Your task to perform on an android device: open device folders in google photos Image 0: 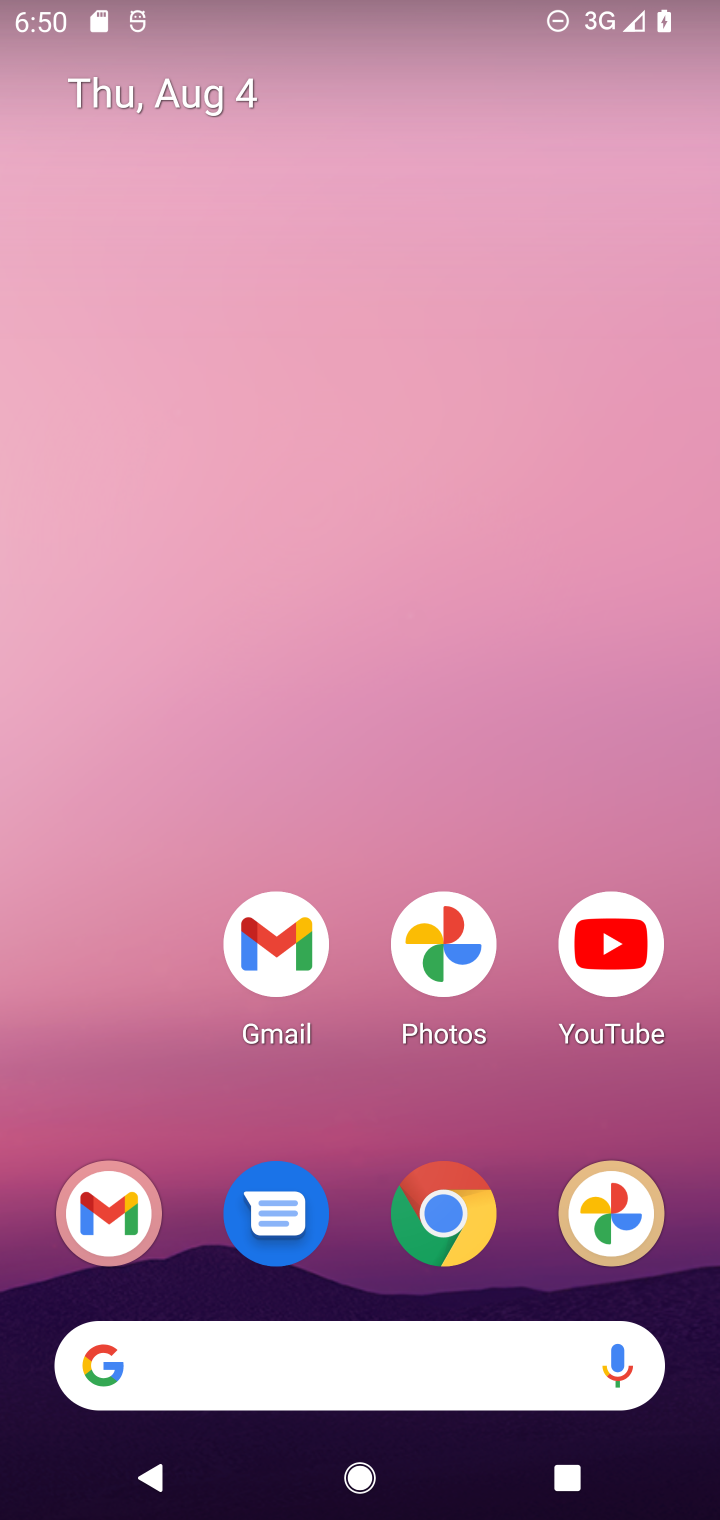
Step 0: press home button
Your task to perform on an android device: open device folders in google photos Image 1: 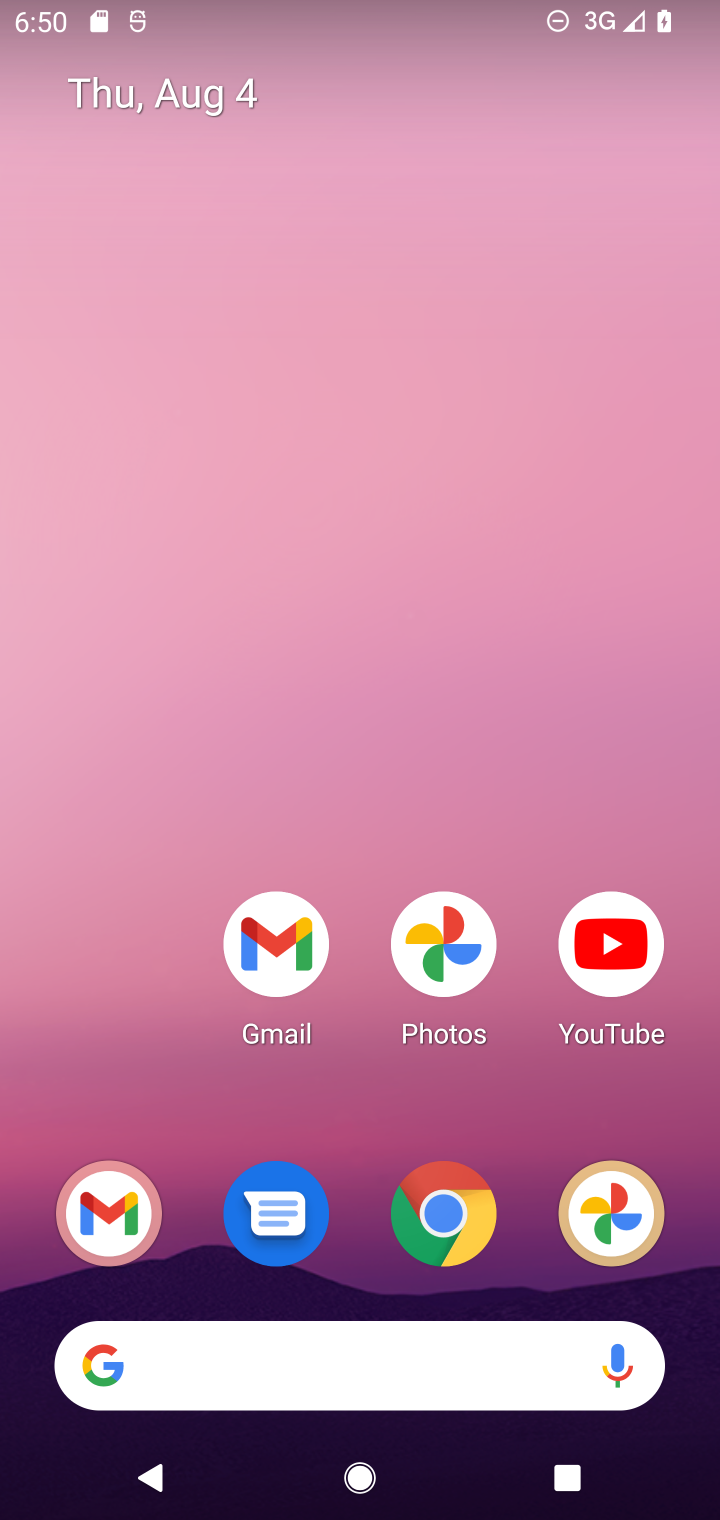
Step 1: drag from (174, 1131) to (152, 321)
Your task to perform on an android device: open device folders in google photos Image 2: 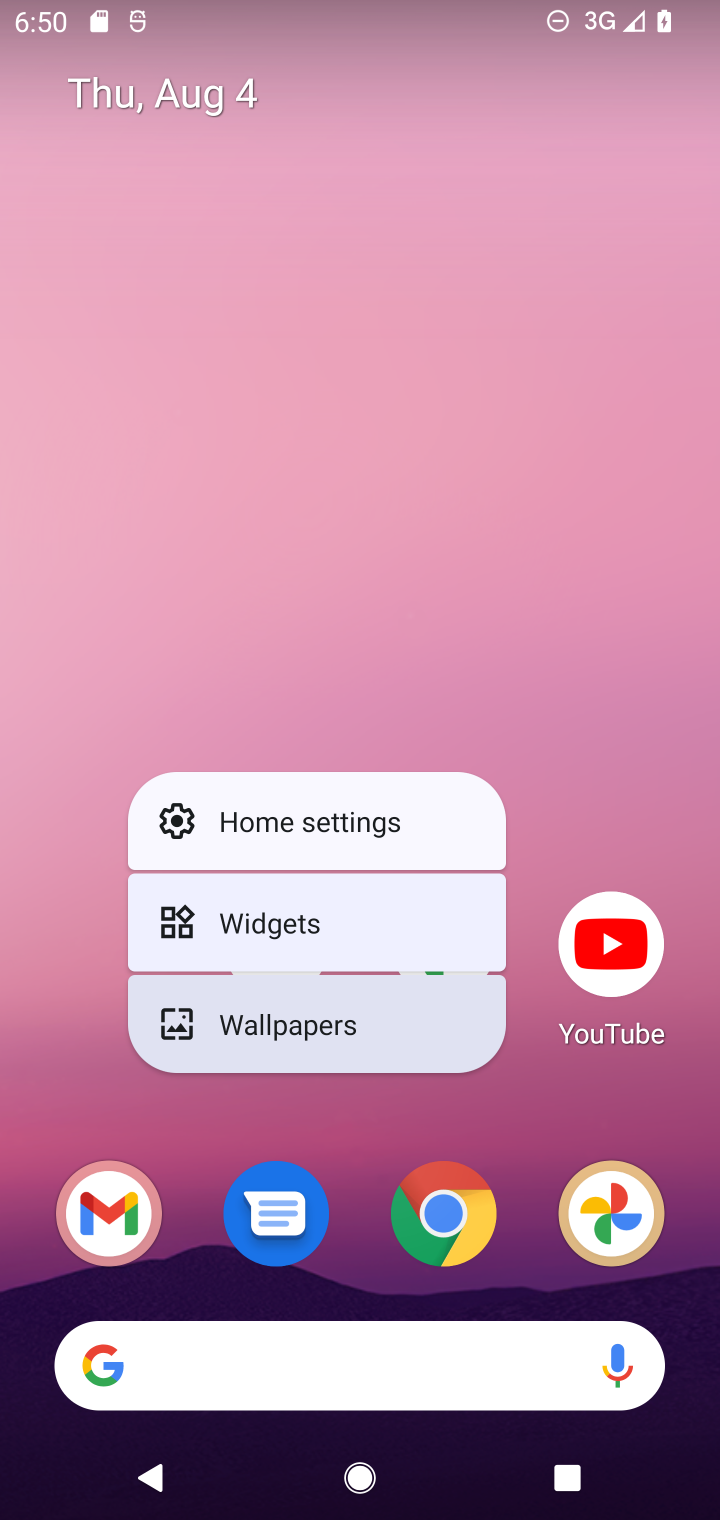
Step 2: click (62, 698)
Your task to perform on an android device: open device folders in google photos Image 3: 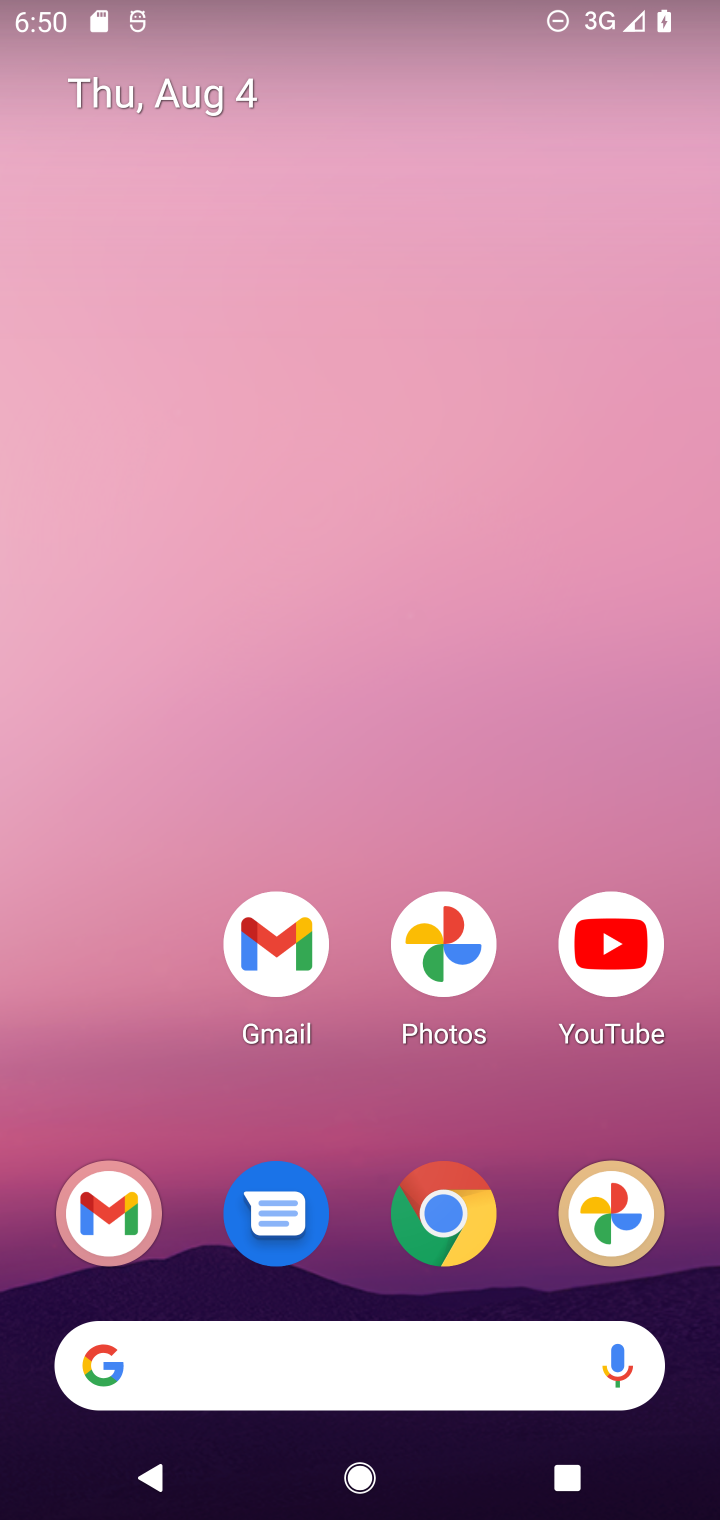
Step 3: drag from (114, 1013) to (116, 252)
Your task to perform on an android device: open device folders in google photos Image 4: 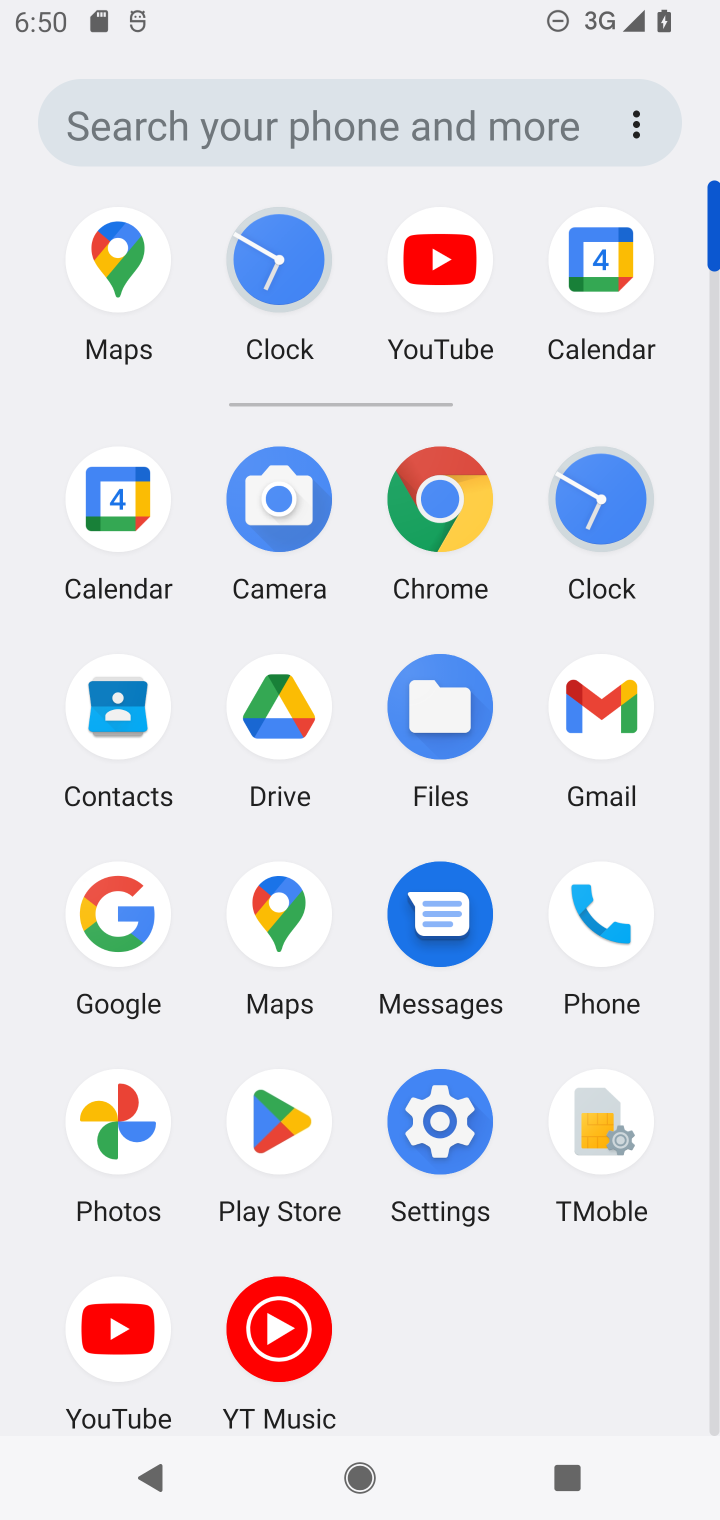
Step 4: click (119, 1141)
Your task to perform on an android device: open device folders in google photos Image 5: 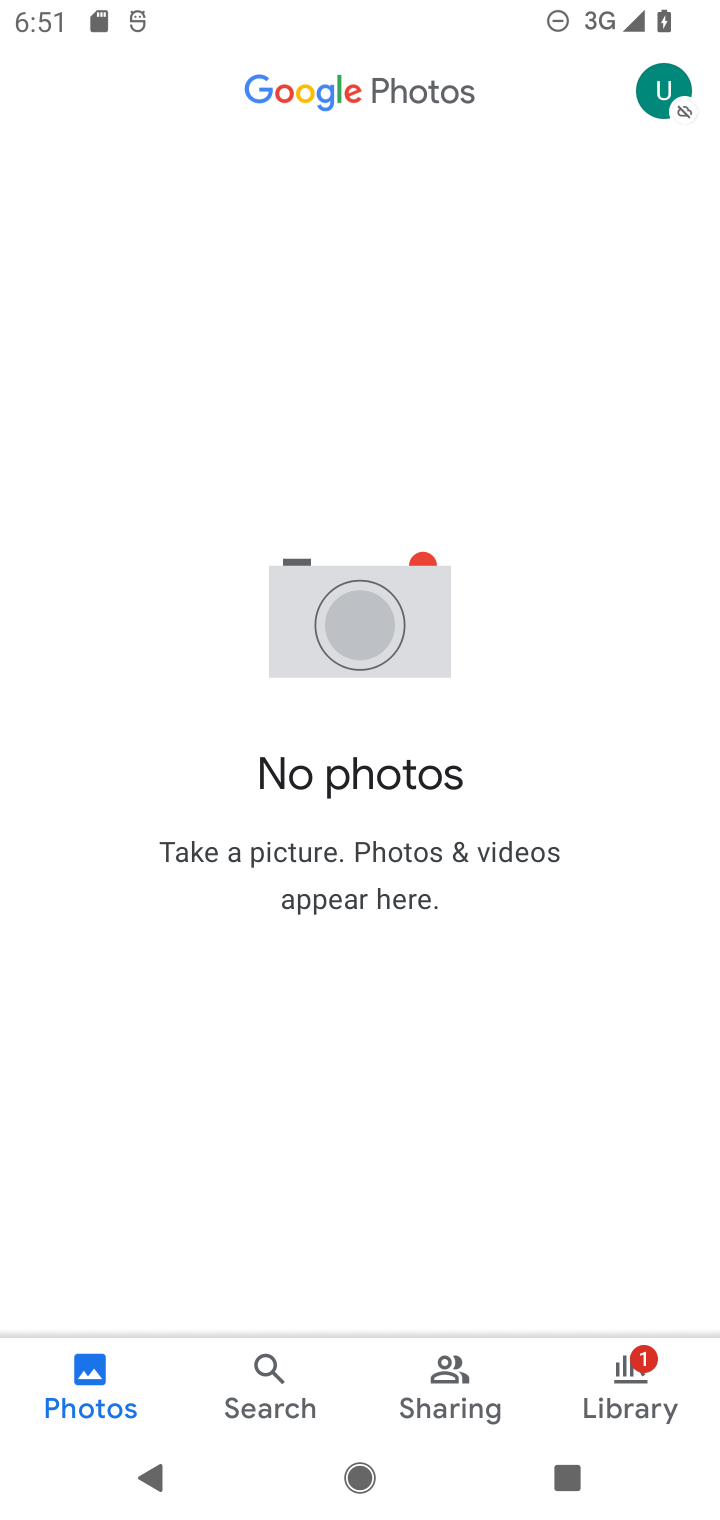
Step 5: click (640, 1372)
Your task to perform on an android device: open device folders in google photos Image 6: 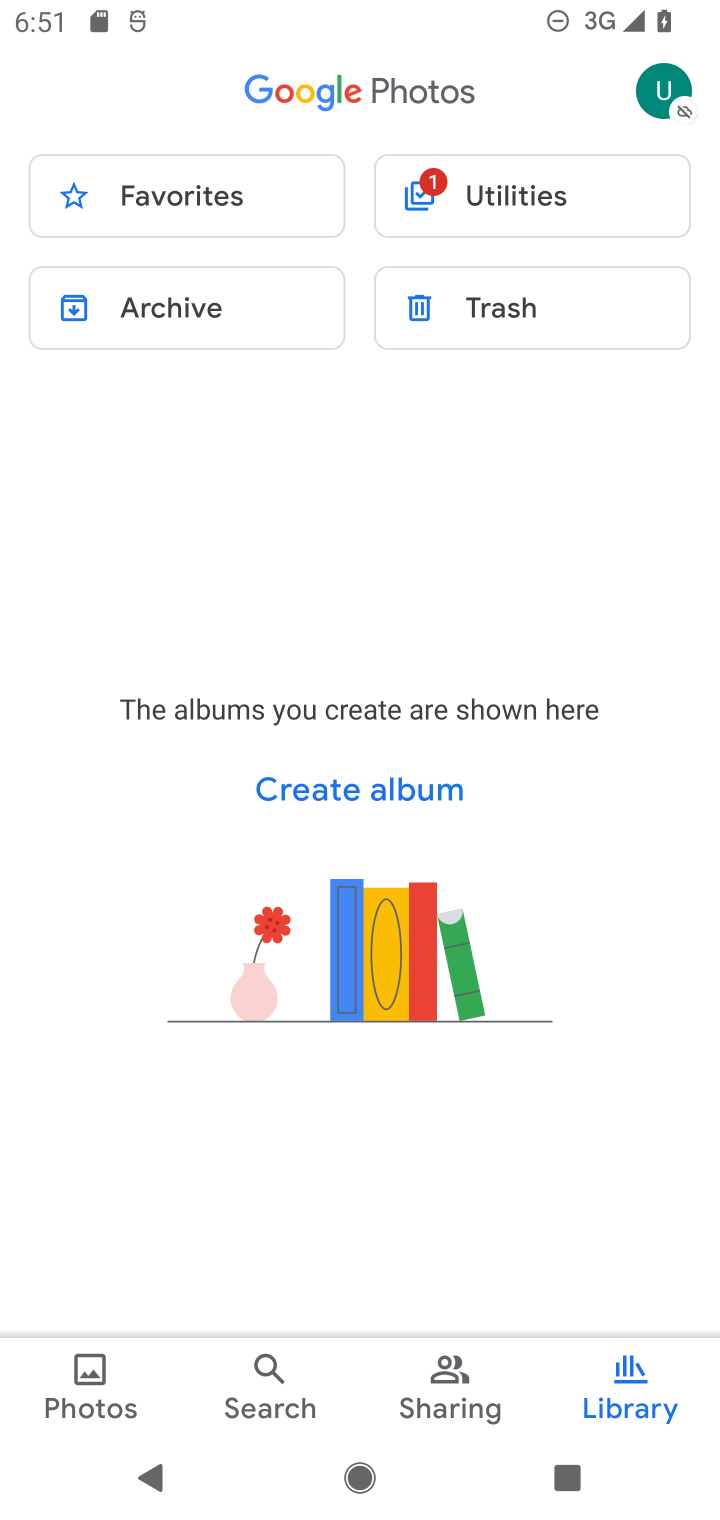
Step 6: task complete